Your task to perform on an android device: set the timer Image 0: 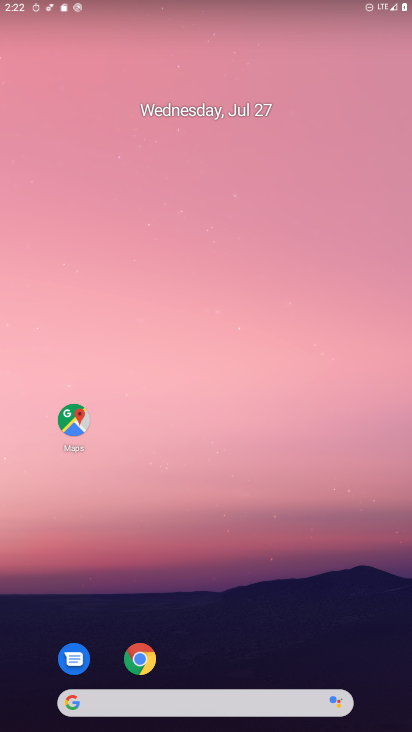
Step 0: drag from (245, 687) to (185, 27)
Your task to perform on an android device: set the timer Image 1: 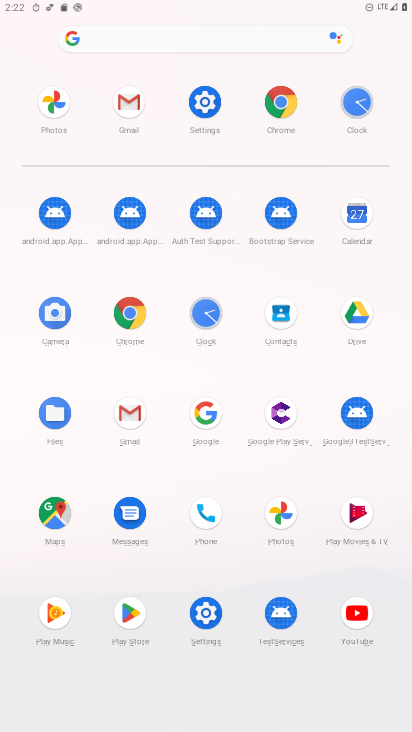
Step 1: click (212, 311)
Your task to perform on an android device: set the timer Image 2: 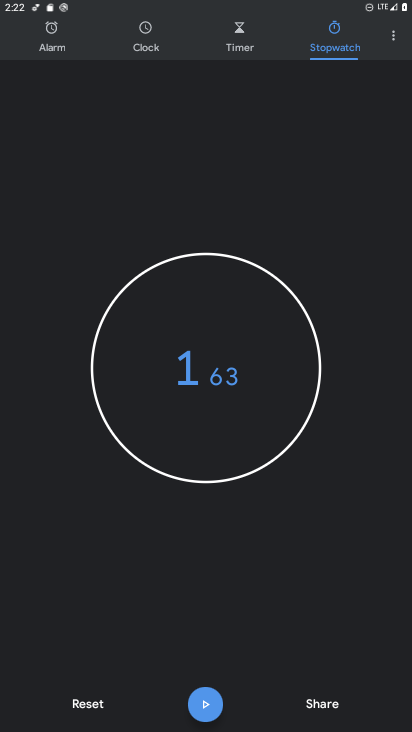
Step 2: click (255, 36)
Your task to perform on an android device: set the timer Image 3: 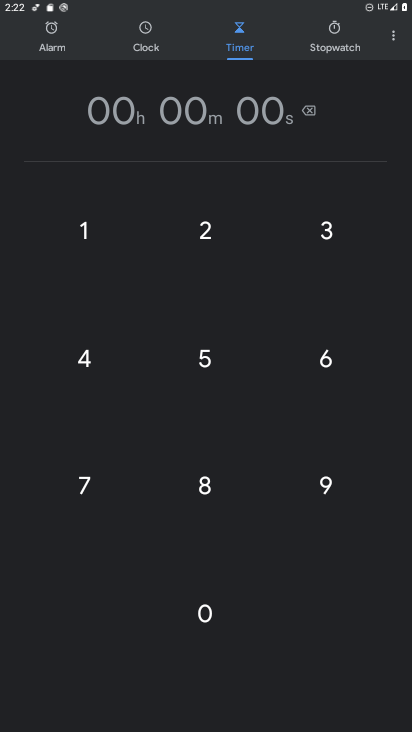
Step 3: click (191, 359)
Your task to perform on an android device: set the timer Image 4: 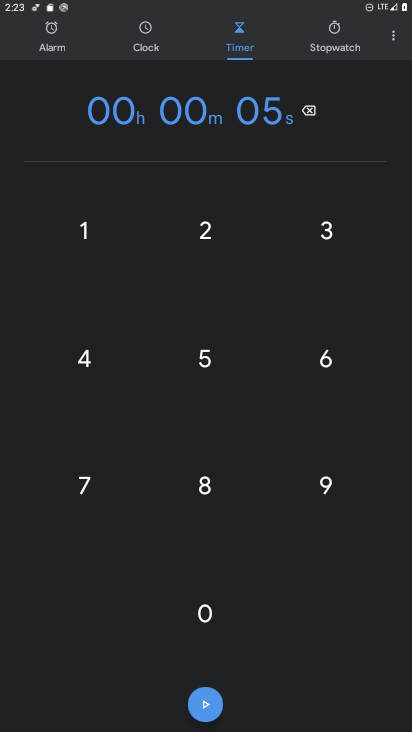
Step 4: task complete